Your task to perform on an android device: What's the weather? Image 0: 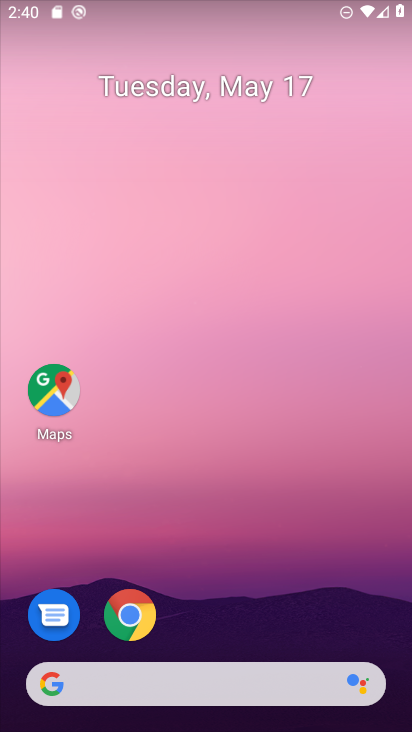
Step 0: drag from (203, 699) to (206, 242)
Your task to perform on an android device: What's the weather? Image 1: 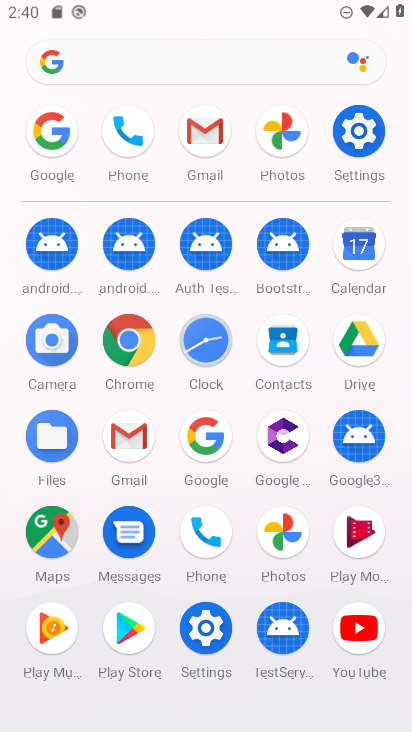
Step 1: click (205, 440)
Your task to perform on an android device: What's the weather? Image 2: 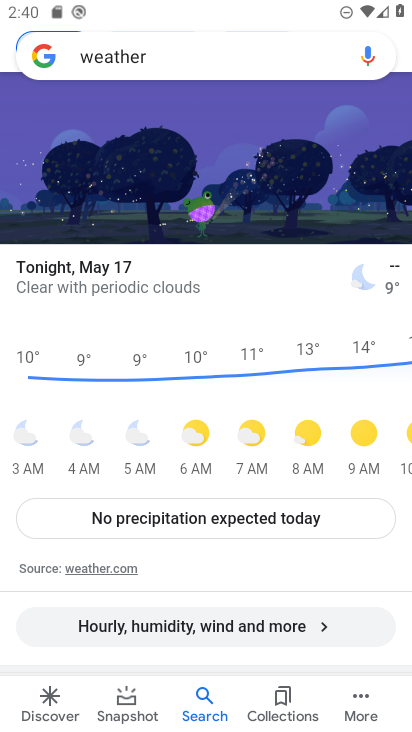
Step 2: task complete